Your task to perform on an android device: check android version Image 0: 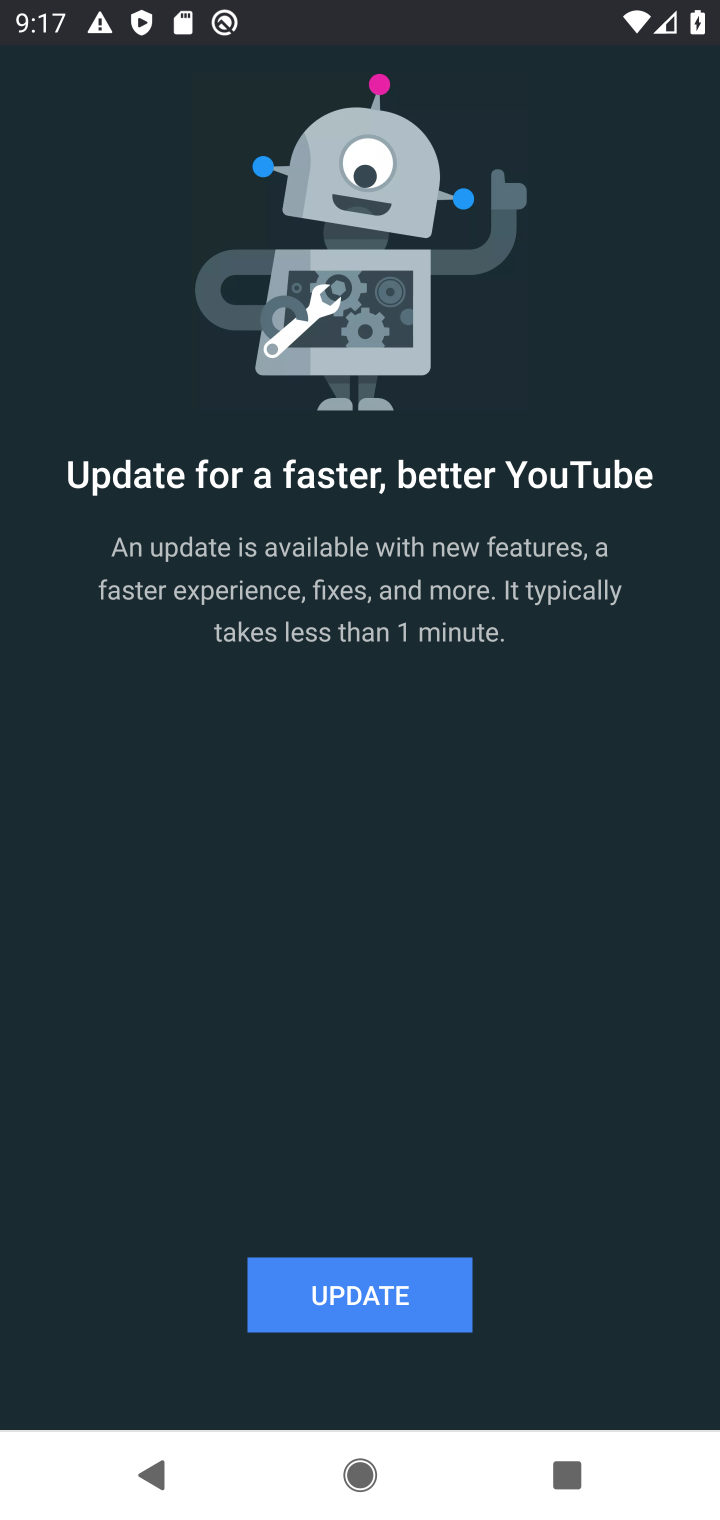
Step 0: press home button
Your task to perform on an android device: check android version Image 1: 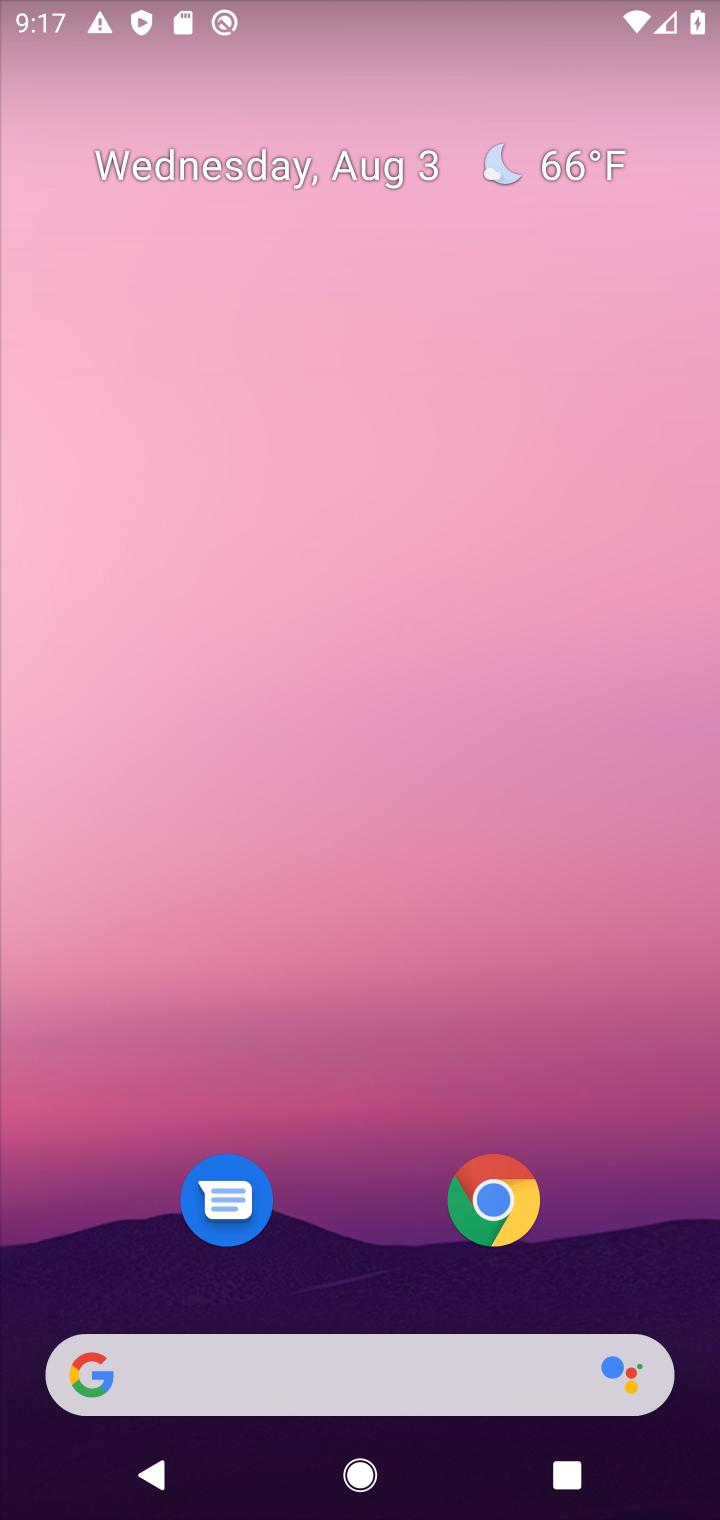
Step 1: drag from (429, 1332) to (436, 45)
Your task to perform on an android device: check android version Image 2: 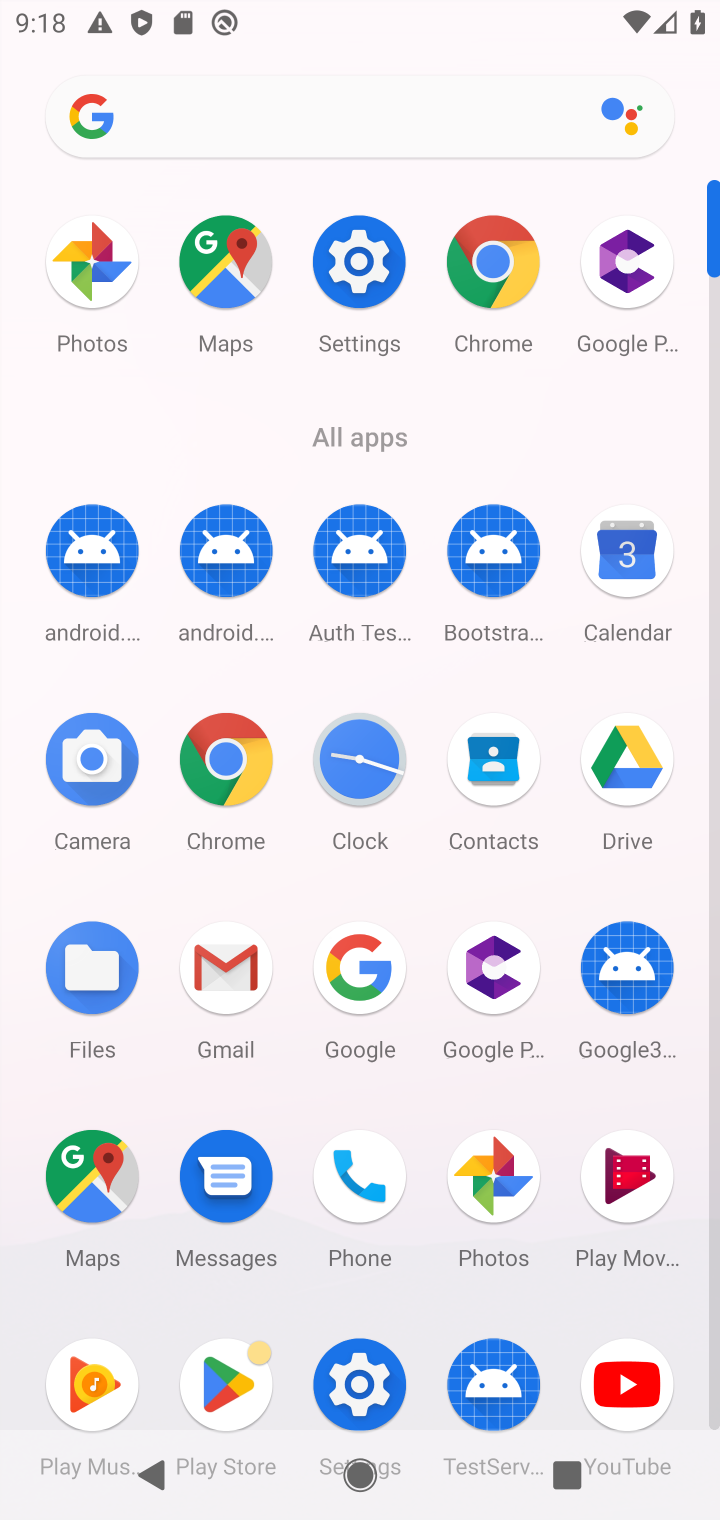
Step 2: click (372, 260)
Your task to perform on an android device: check android version Image 3: 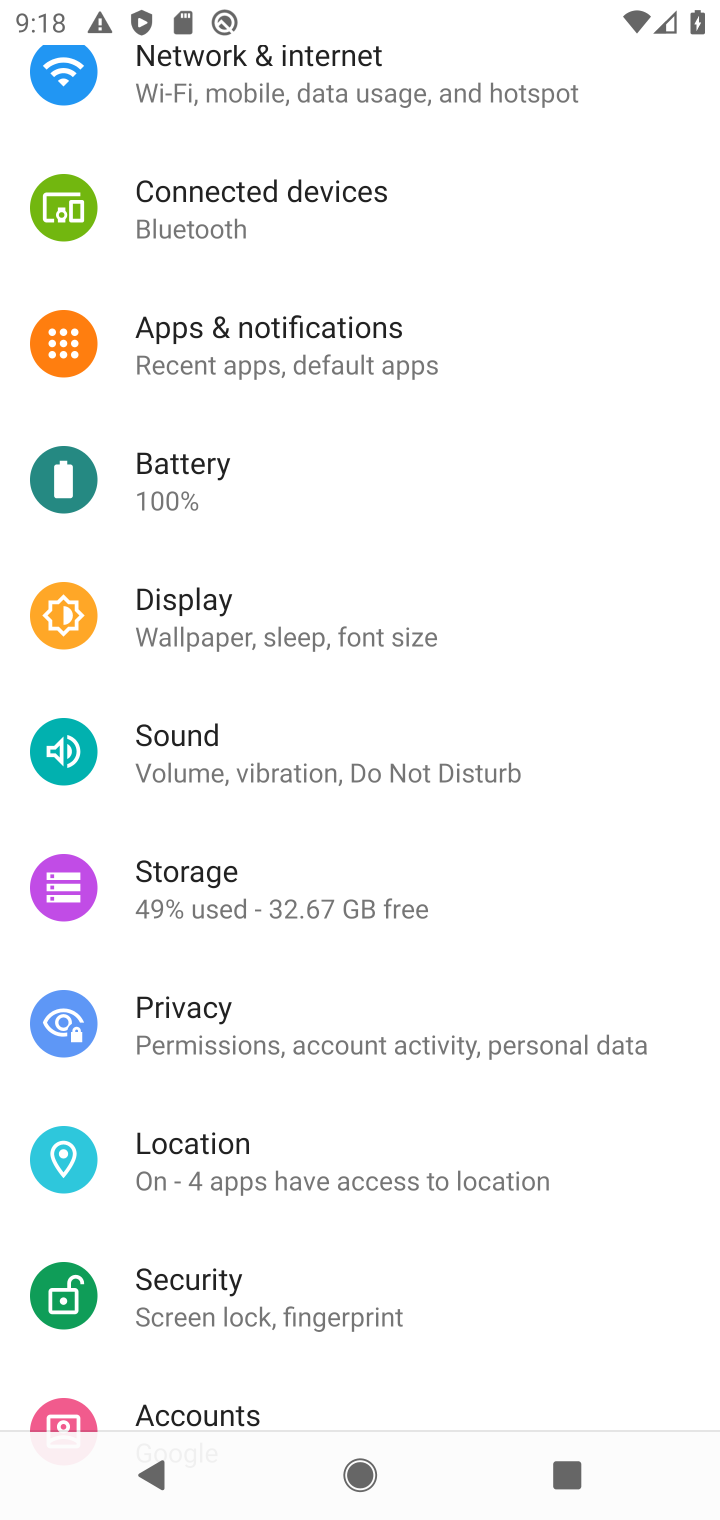
Step 3: drag from (313, 1369) to (353, 242)
Your task to perform on an android device: check android version Image 4: 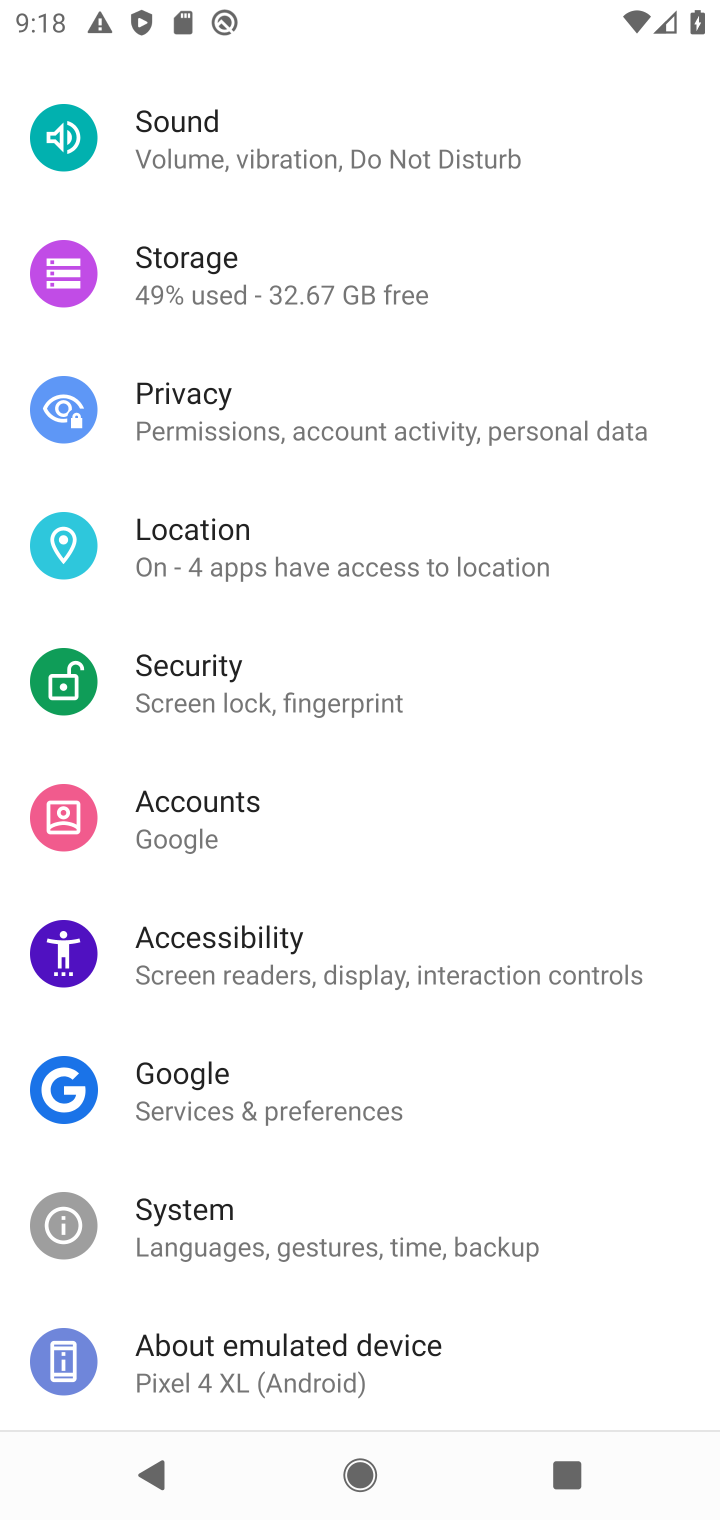
Step 4: drag from (315, 1351) to (312, 569)
Your task to perform on an android device: check android version Image 5: 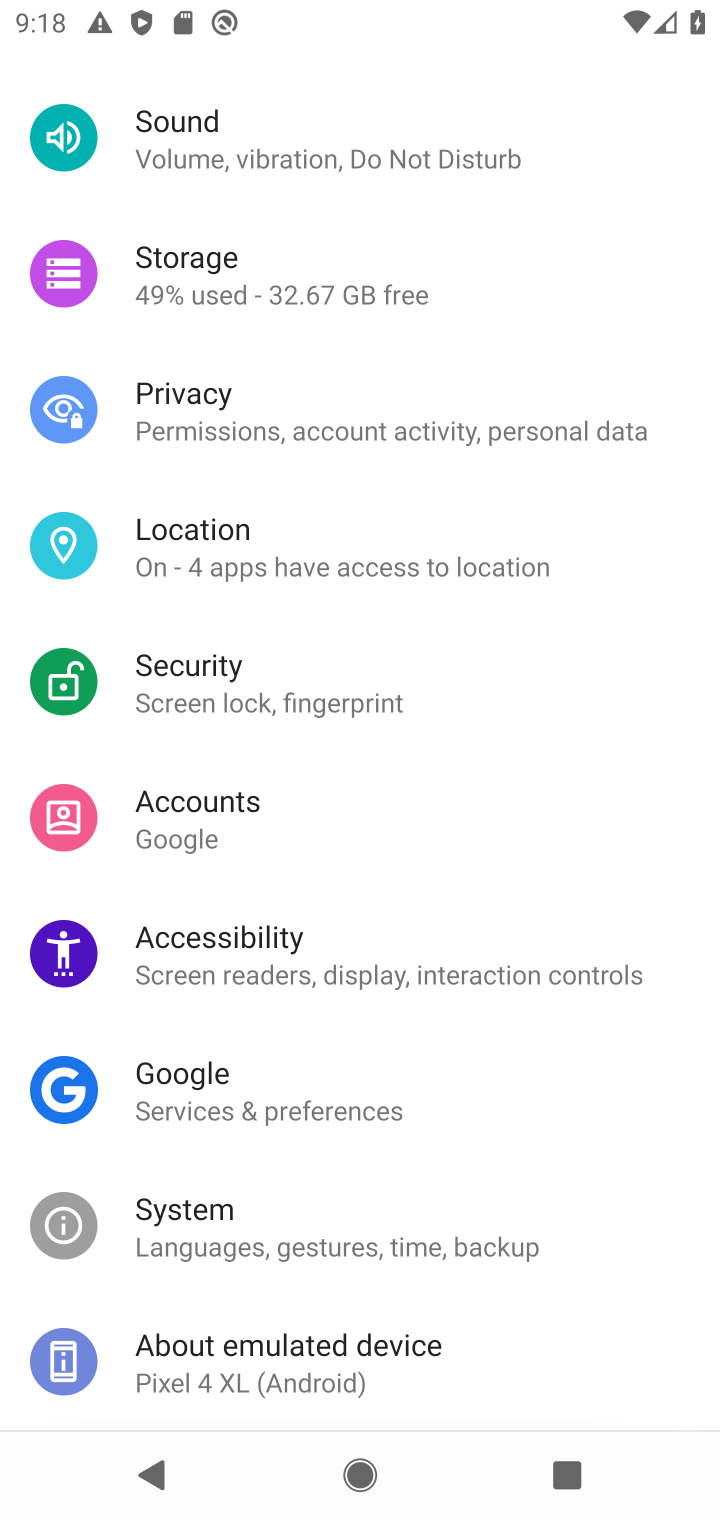
Step 5: click (325, 1339)
Your task to perform on an android device: check android version Image 6: 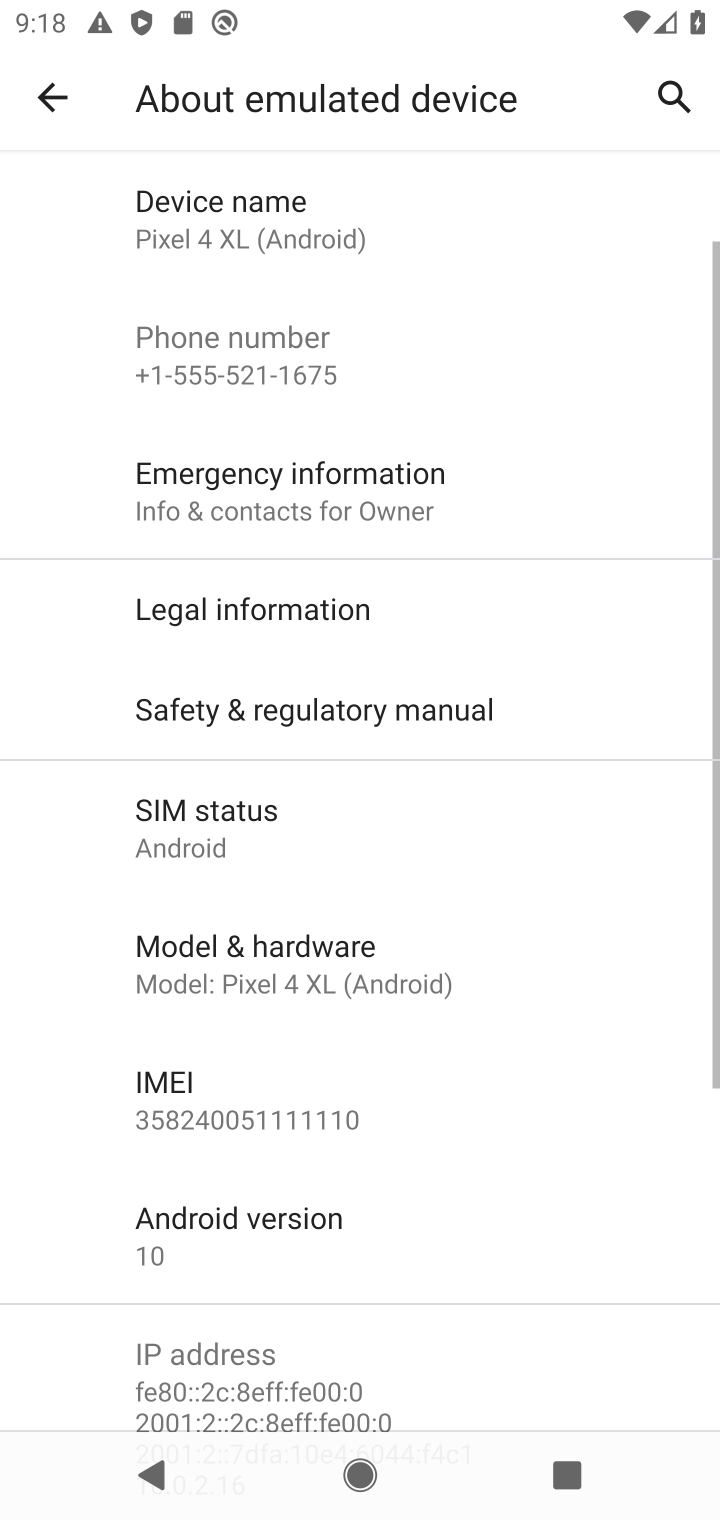
Step 6: click (243, 1238)
Your task to perform on an android device: check android version Image 7: 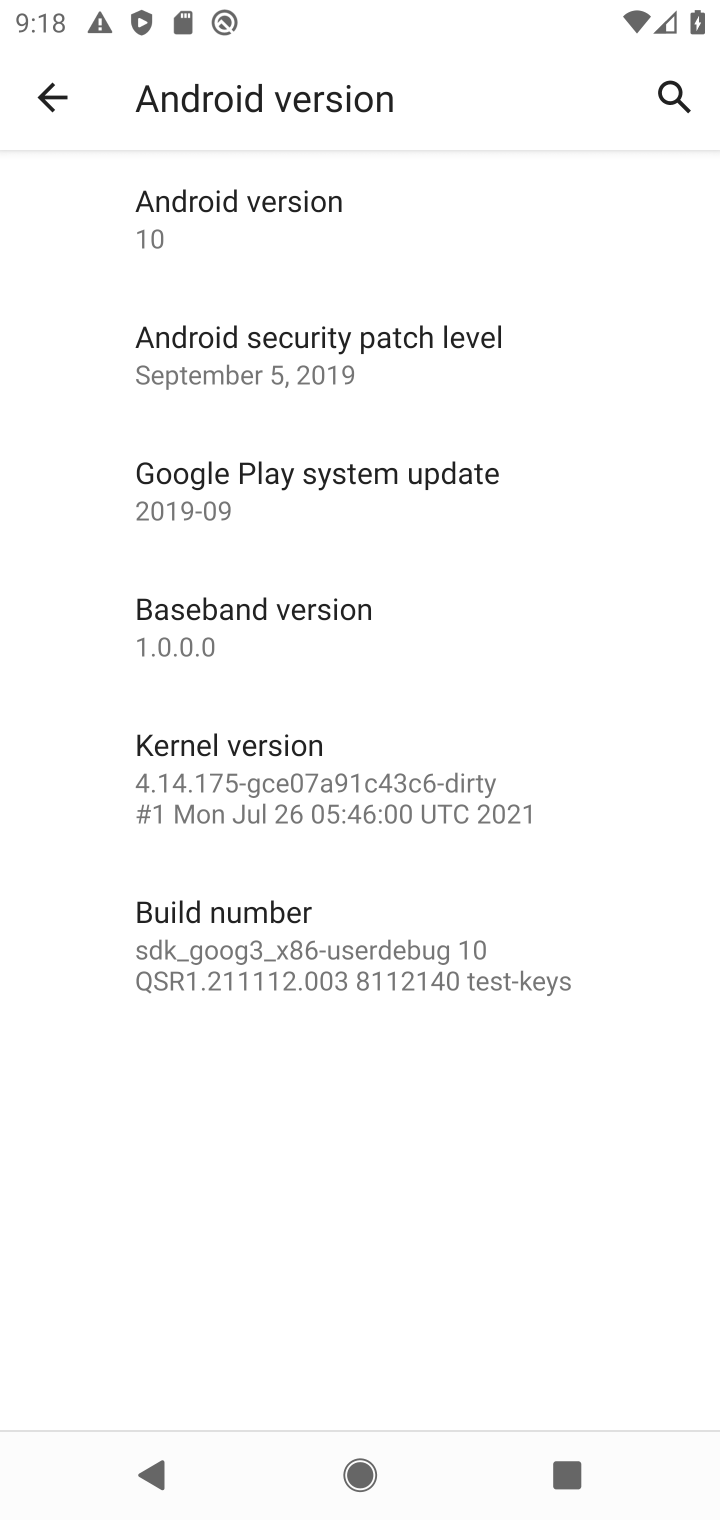
Step 7: task complete